Your task to perform on an android device: toggle location history Image 0: 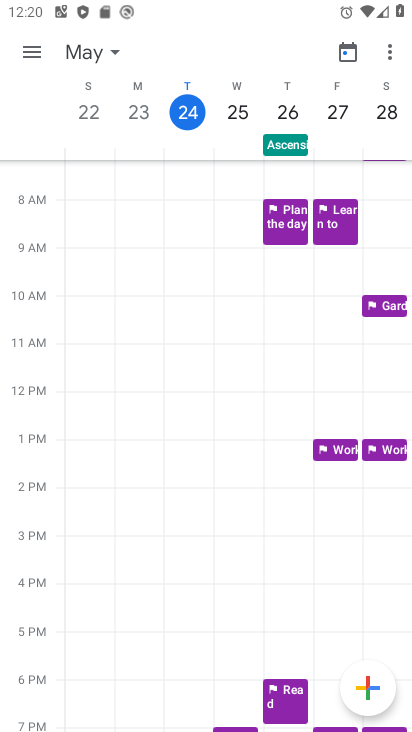
Step 0: press back button
Your task to perform on an android device: toggle location history Image 1: 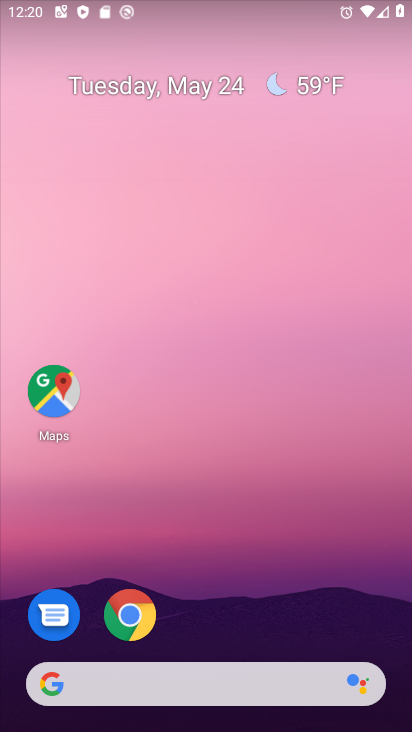
Step 1: drag from (262, 538) to (191, 0)
Your task to perform on an android device: toggle location history Image 2: 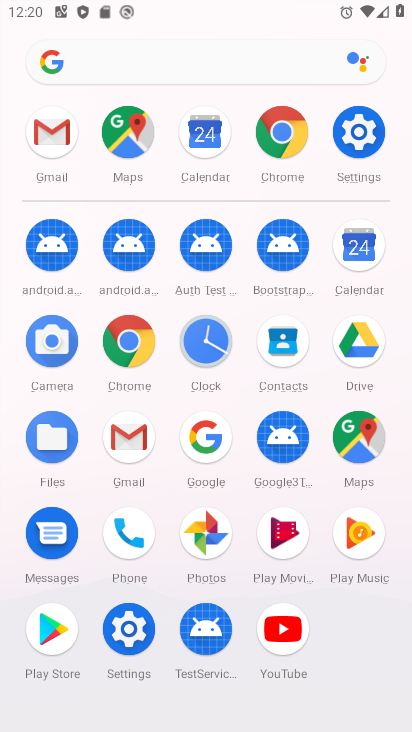
Step 2: drag from (18, 587) to (6, 270)
Your task to perform on an android device: toggle location history Image 3: 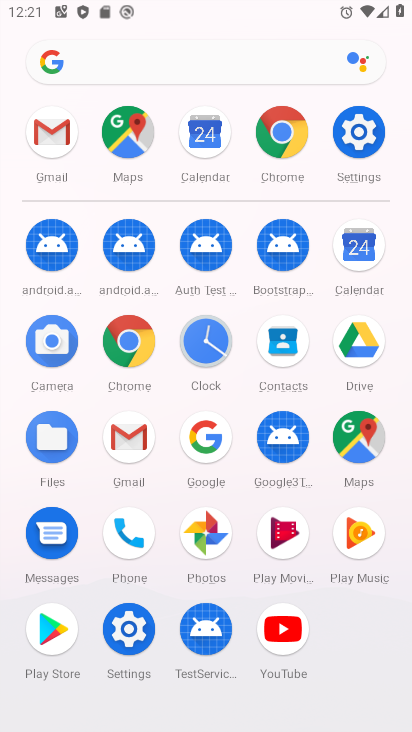
Step 3: click (366, 127)
Your task to perform on an android device: toggle location history Image 4: 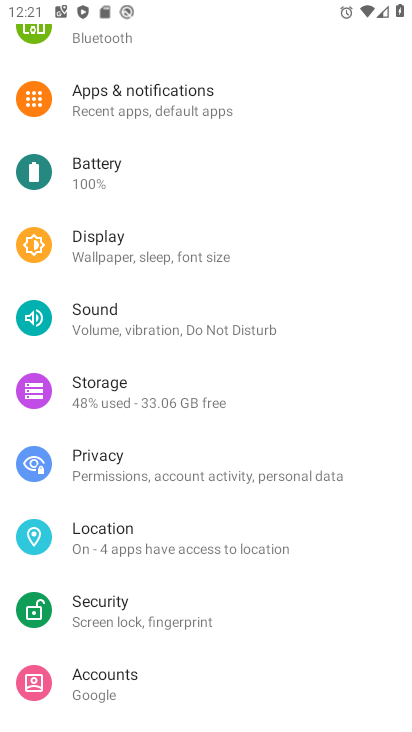
Step 4: drag from (186, 630) to (235, 74)
Your task to perform on an android device: toggle location history Image 5: 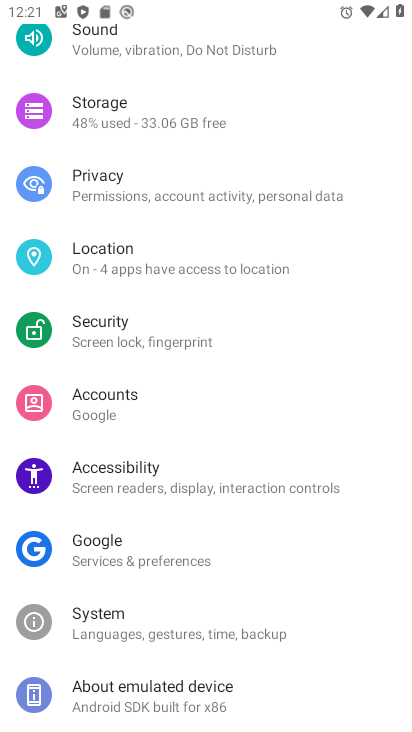
Step 5: click (134, 272)
Your task to perform on an android device: toggle location history Image 6: 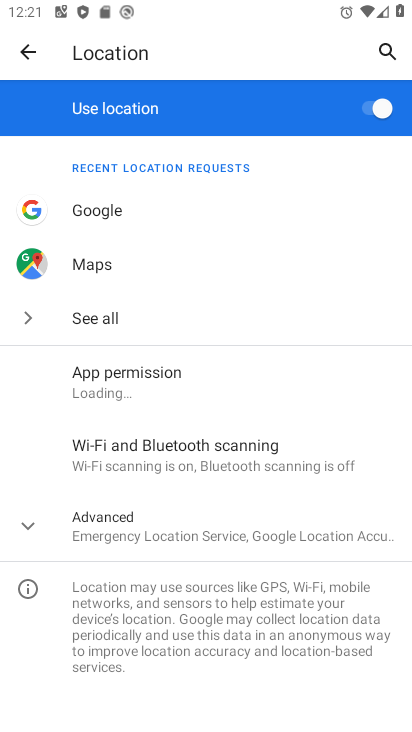
Step 6: click (33, 539)
Your task to perform on an android device: toggle location history Image 7: 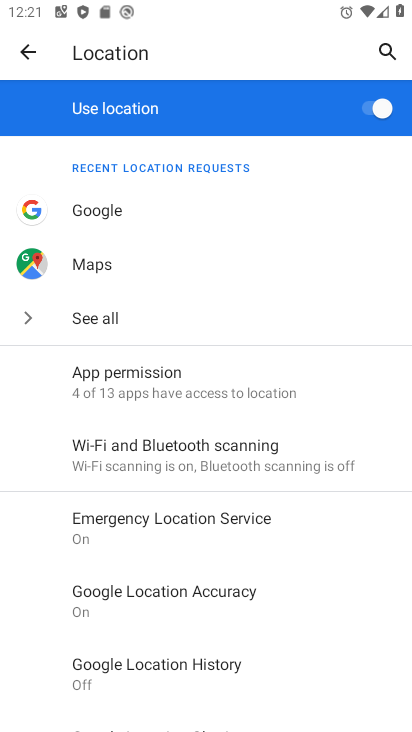
Step 7: drag from (244, 654) to (259, 346)
Your task to perform on an android device: toggle location history Image 8: 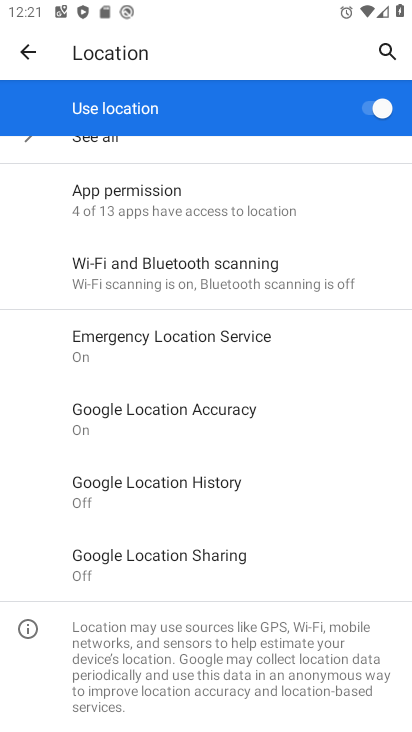
Step 8: click (216, 489)
Your task to perform on an android device: toggle location history Image 9: 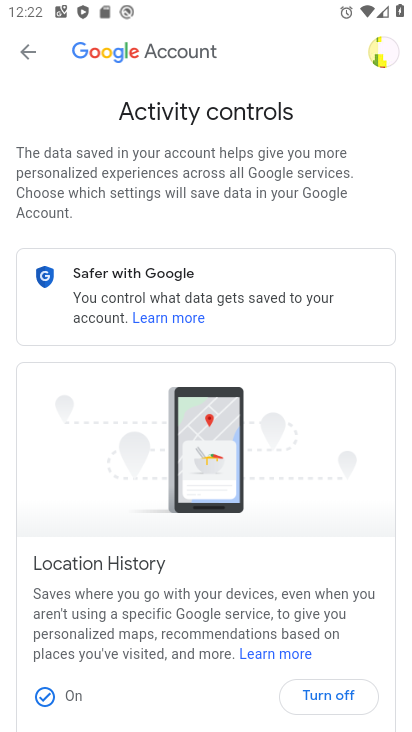
Step 9: drag from (110, 438) to (111, 110)
Your task to perform on an android device: toggle location history Image 10: 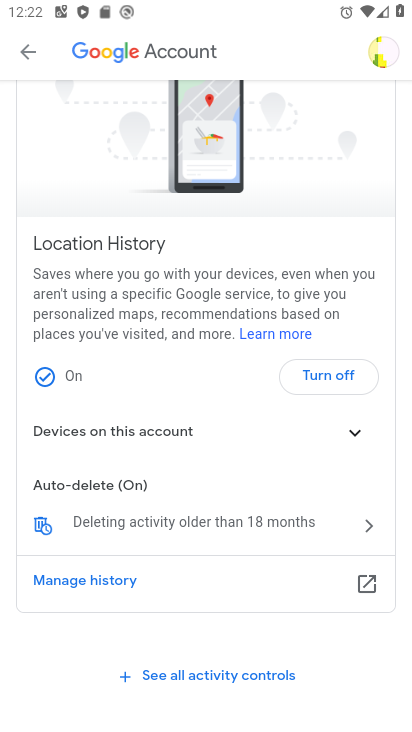
Step 10: click (349, 373)
Your task to perform on an android device: toggle location history Image 11: 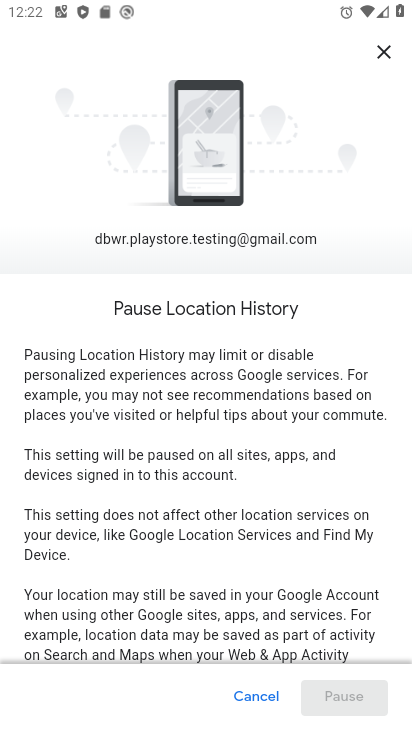
Step 11: drag from (220, 473) to (254, 81)
Your task to perform on an android device: toggle location history Image 12: 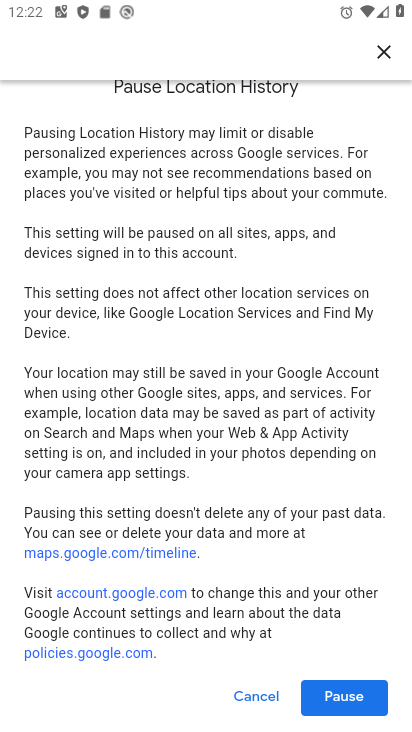
Step 12: click (324, 686)
Your task to perform on an android device: toggle location history Image 13: 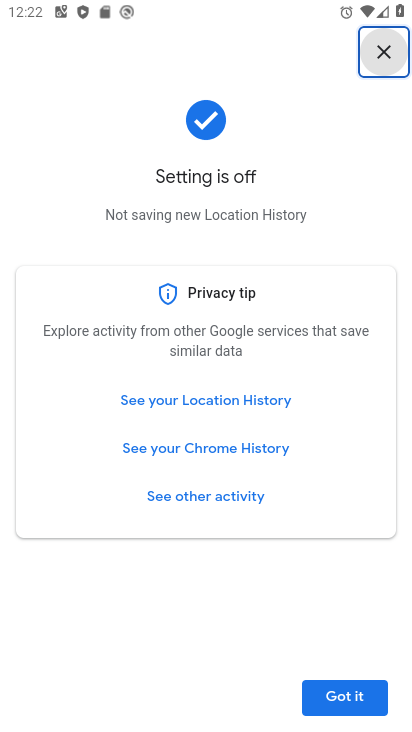
Step 13: task complete